Your task to perform on an android device: turn off sleep mode Image 0: 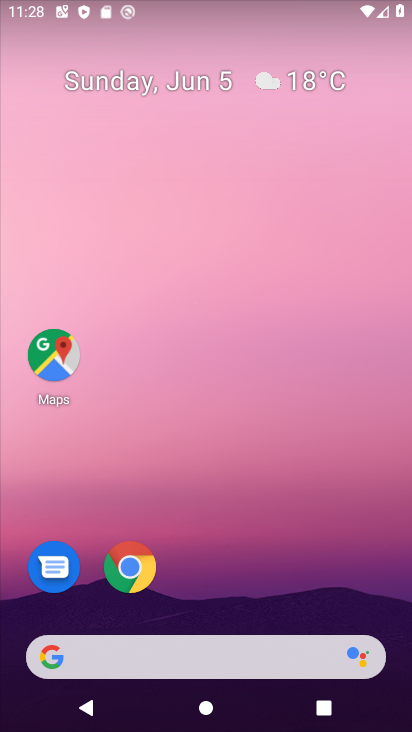
Step 0: drag from (206, 539) to (168, 35)
Your task to perform on an android device: turn off sleep mode Image 1: 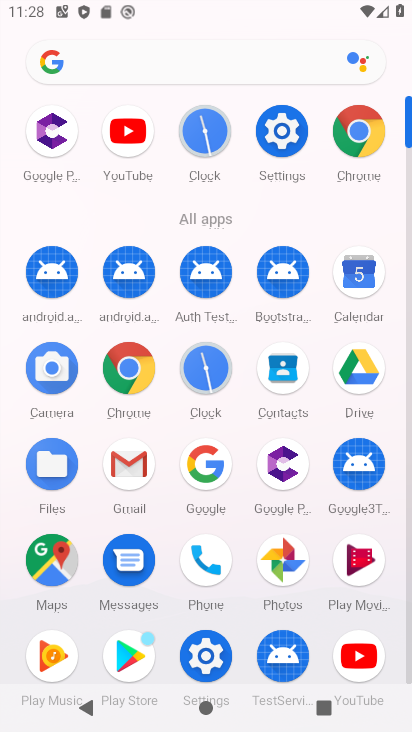
Step 1: click (286, 125)
Your task to perform on an android device: turn off sleep mode Image 2: 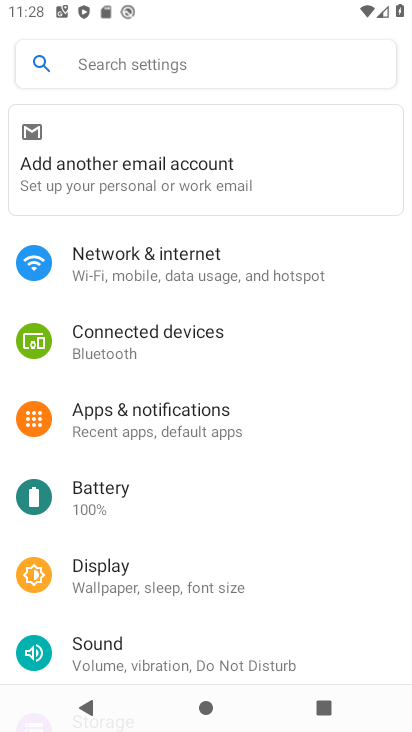
Step 2: click (211, 553)
Your task to perform on an android device: turn off sleep mode Image 3: 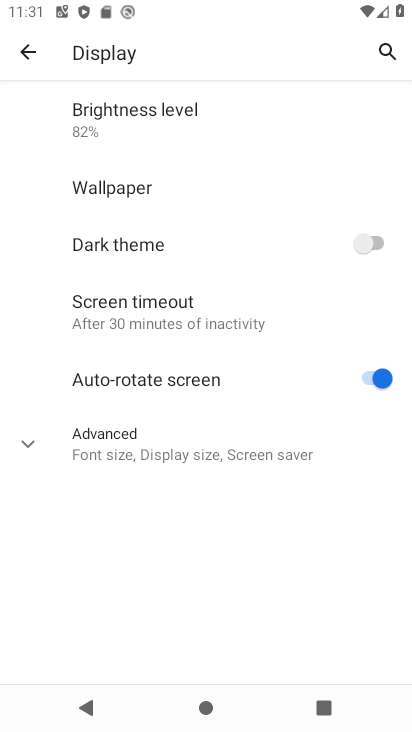
Step 3: task complete